Your task to perform on an android device: Open Maps and search for coffee Image 0: 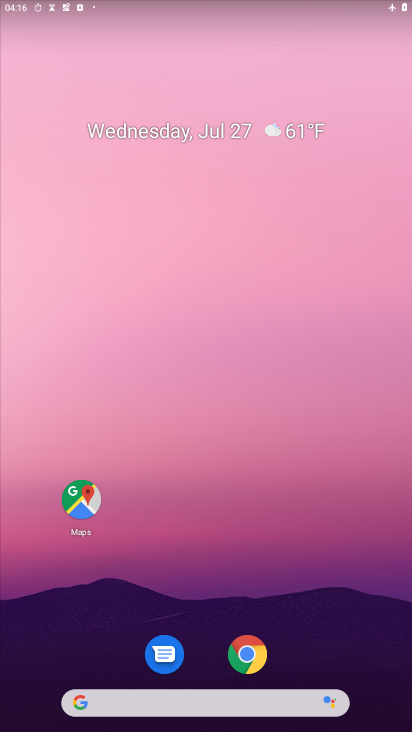
Step 0: drag from (303, 674) to (381, 80)
Your task to perform on an android device: Open Maps and search for coffee Image 1: 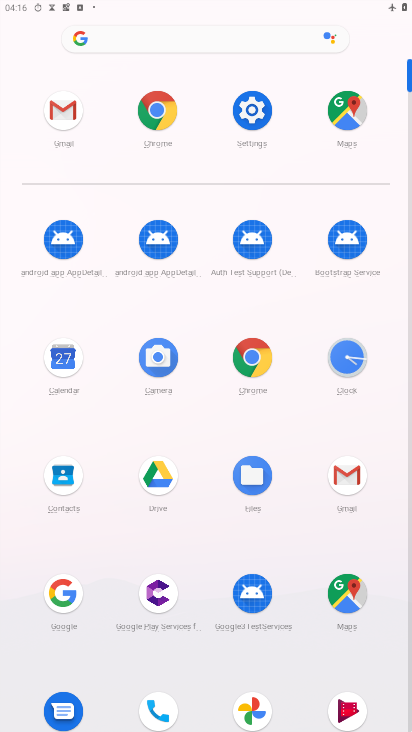
Step 1: click (343, 606)
Your task to perform on an android device: Open Maps and search for coffee Image 2: 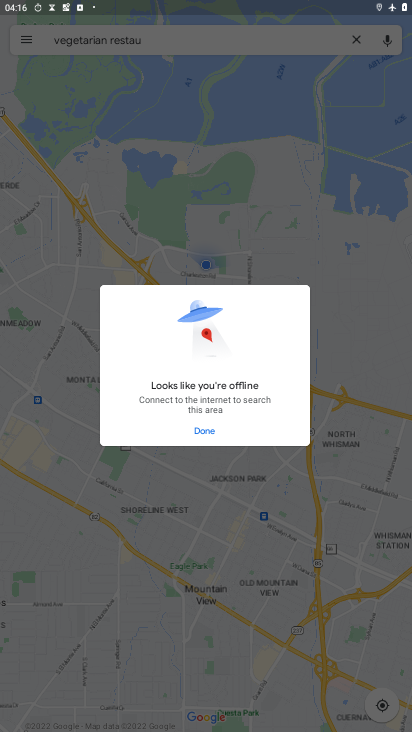
Step 2: press home button
Your task to perform on an android device: Open Maps and search for coffee Image 3: 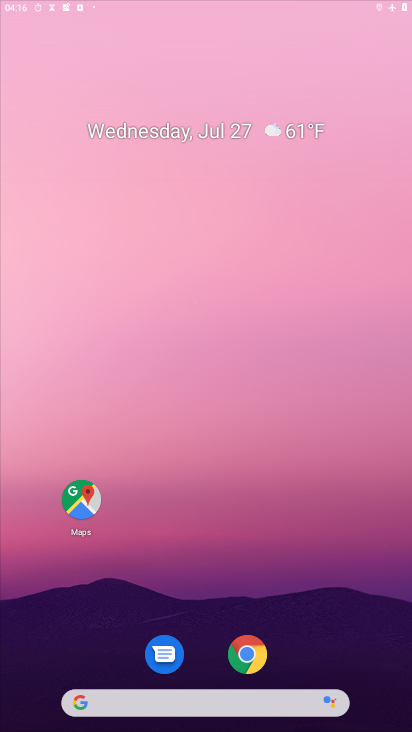
Step 3: drag from (249, 684) to (402, 710)
Your task to perform on an android device: Open Maps and search for coffee Image 4: 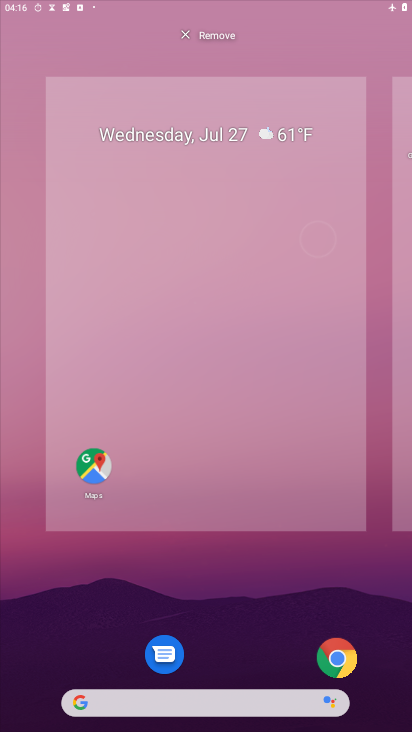
Step 4: drag from (253, 687) to (279, 10)
Your task to perform on an android device: Open Maps and search for coffee Image 5: 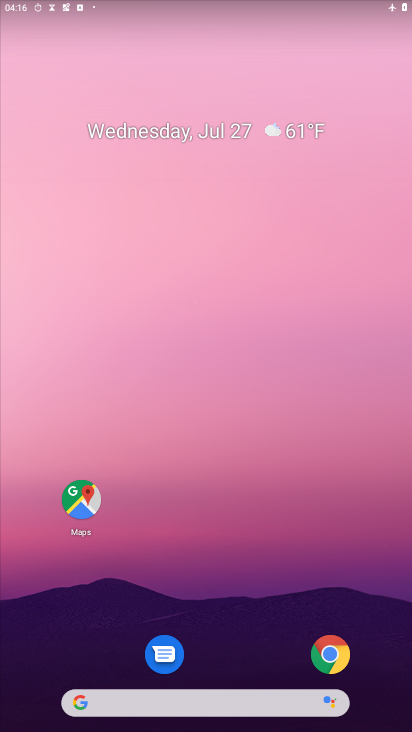
Step 5: drag from (251, 695) to (348, 1)
Your task to perform on an android device: Open Maps and search for coffee Image 6: 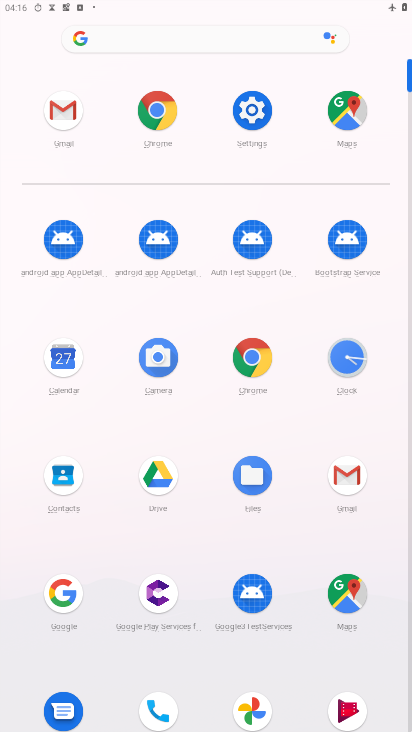
Step 6: click (363, 591)
Your task to perform on an android device: Open Maps and search for coffee Image 7: 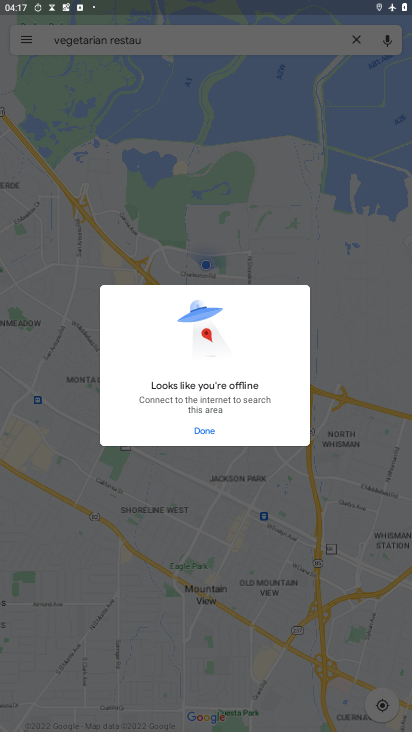
Step 7: task complete